Your task to perform on an android device: Open Chrome and go to settings Image 0: 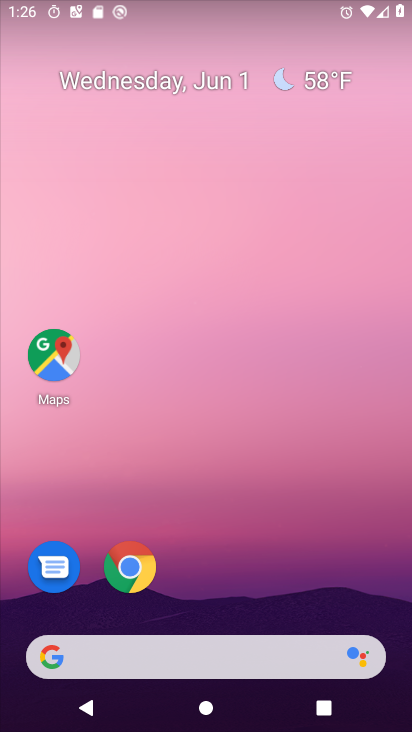
Step 0: click (133, 555)
Your task to perform on an android device: Open Chrome and go to settings Image 1: 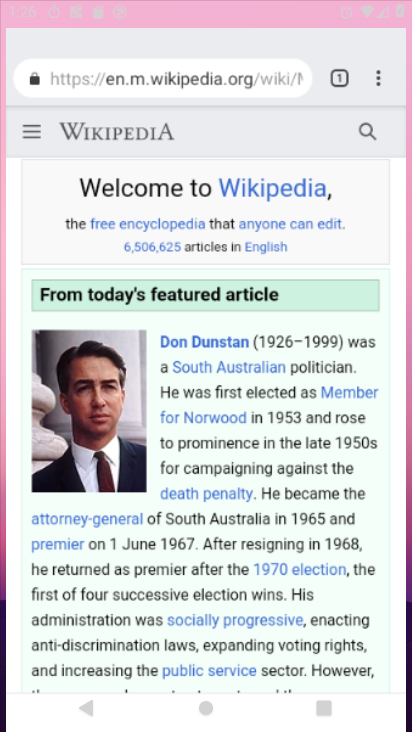
Step 1: press home button
Your task to perform on an android device: Open Chrome and go to settings Image 2: 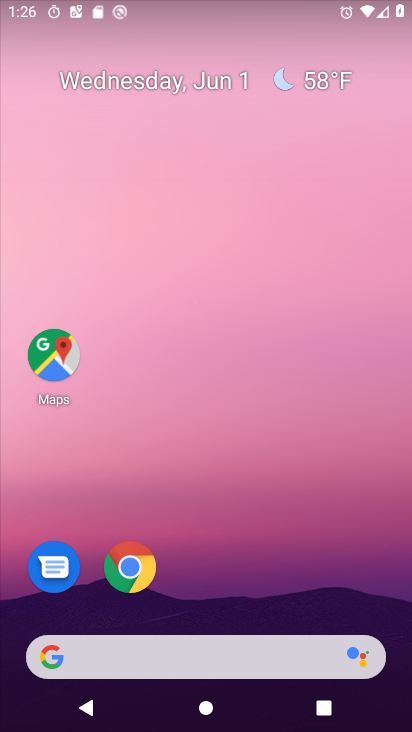
Step 2: click (141, 578)
Your task to perform on an android device: Open Chrome and go to settings Image 3: 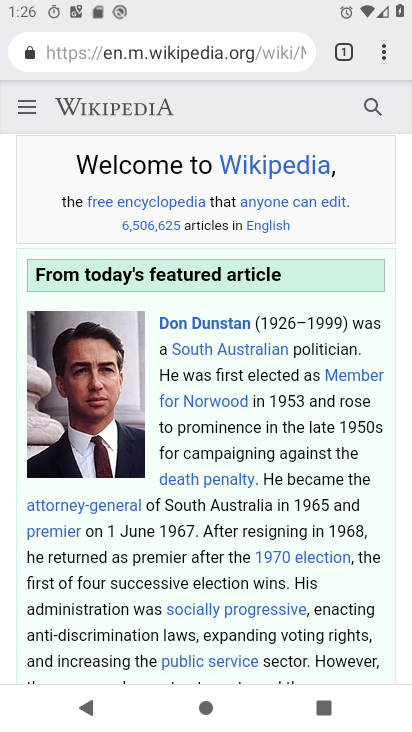
Step 3: click (371, 47)
Your task to perform on an android device: Open Chrome and go to settings Image 4: 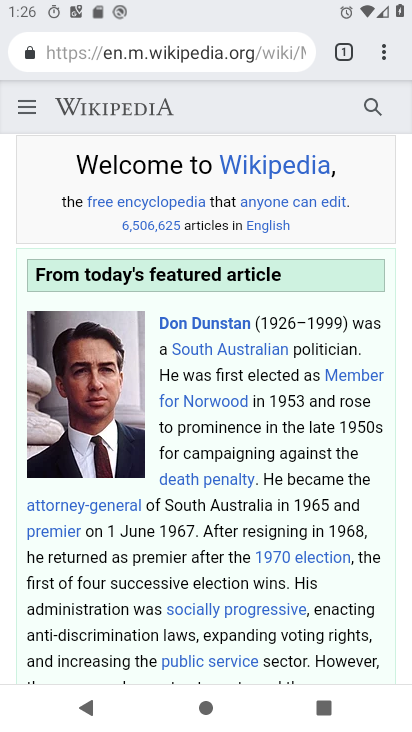
Step 4: click (369, 52)
Your task to perform on an android device: Open Chrome and go to settings Image 5: 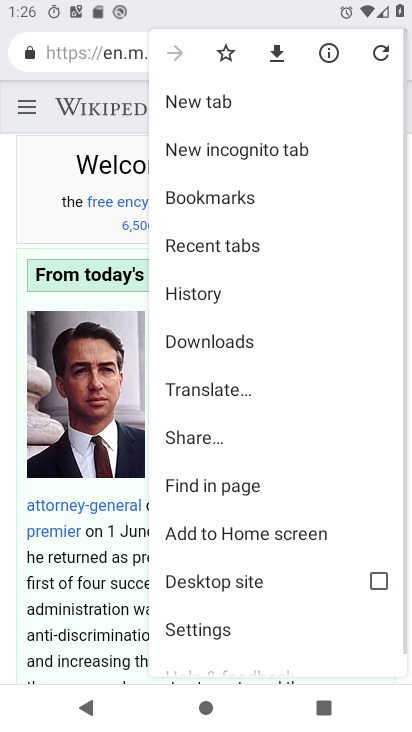
Step 5: click (223, 637)
Your task to perform on an android device: Open Chrome and go to settings Image 6: 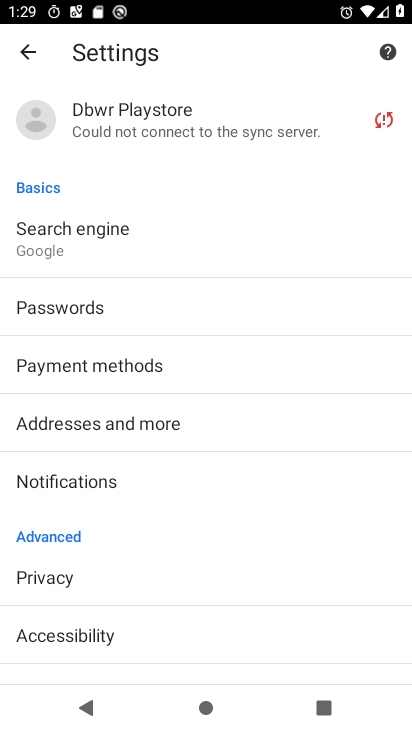
Step 6: task complete